Your task to perform on an android device: Find coffee shops on Maps Image 0: 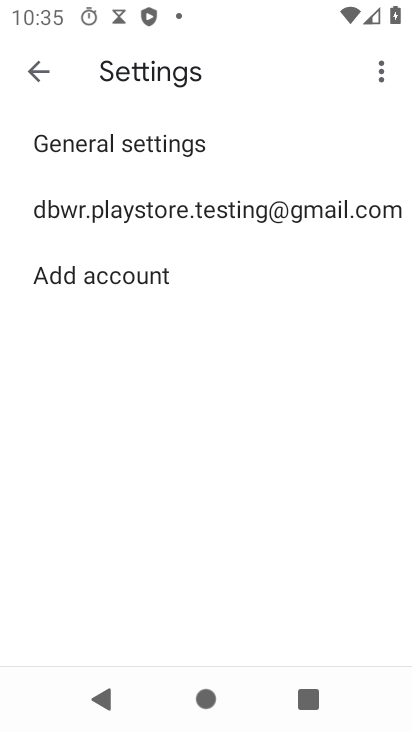
Step 0: press back button
Your task to perform on an android device: Find coffee shops on Maps Image 1: 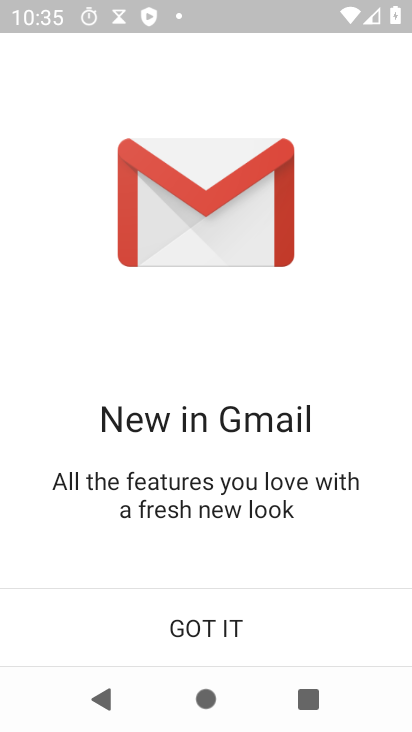
Step 1: press back button
Your task to perform on an android device: Find coffee shops on Maps Image 2: 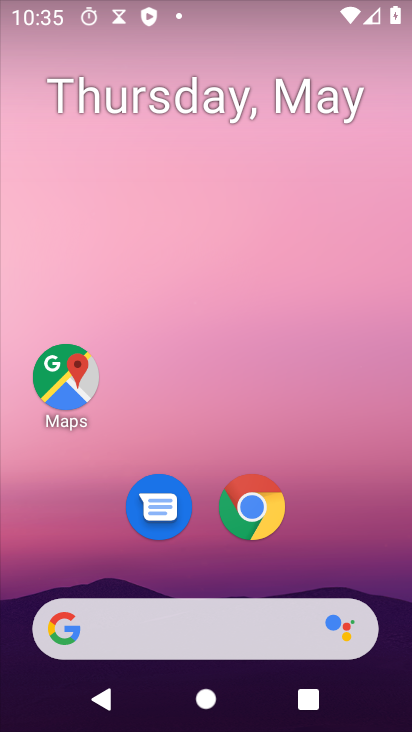
Step 2: drag from (321, 575) to (256, 0)
Your task to perform on an android device: Find coffee shops on Maps Image 3: 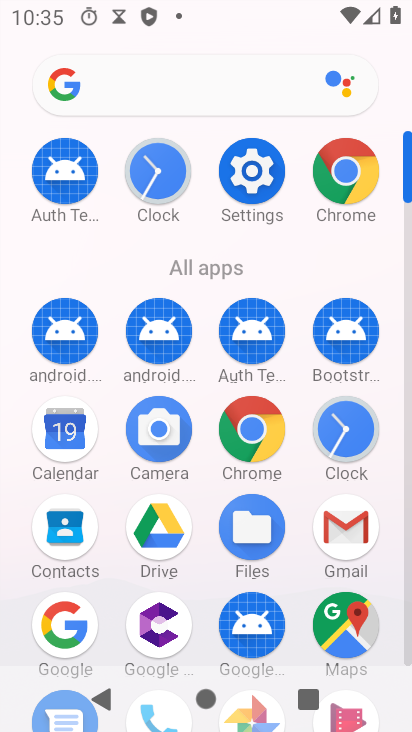
Step 3: drag from (18, 583) to (26, 230)
Your task to perform on an android device: Find coffee shops on Maps Image 4: 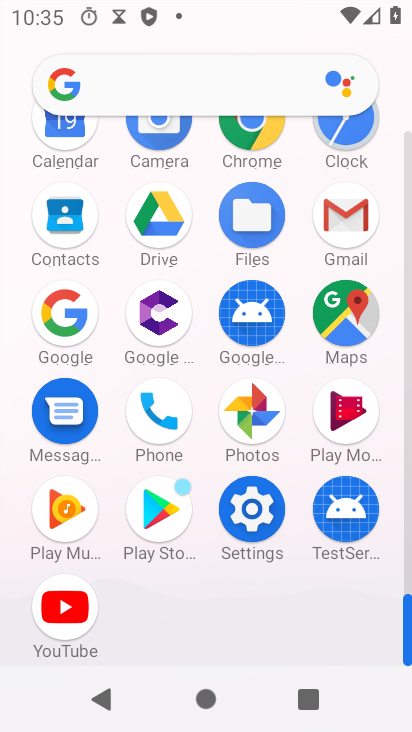
Step 4: click (346, 312)
Your task to perform on an android device: Find coffee shops on Maps Image 5: 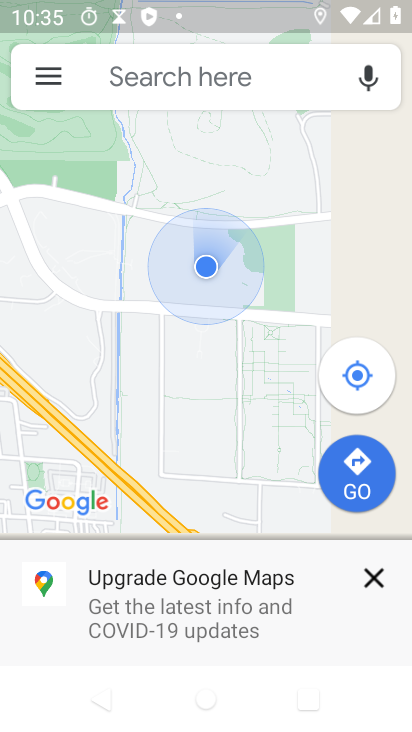
Step 5: click (367, 570)
Your task to perform on an android device: Find coffee shops on Maps Image 6: 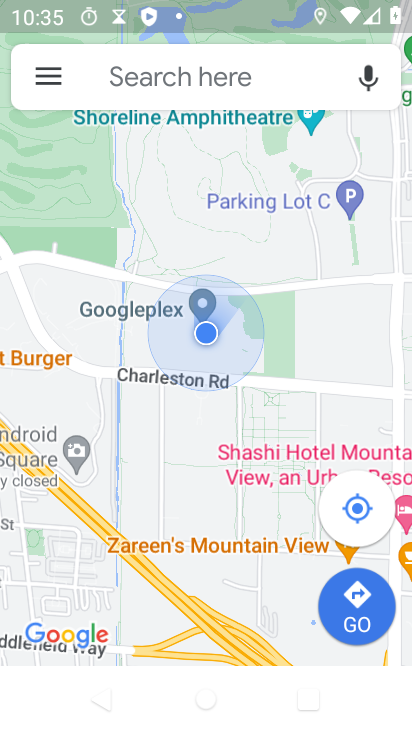
Step 6: click (261, 70)
Your task to perform on an android device: Find coffee shops on Maps Image 7: 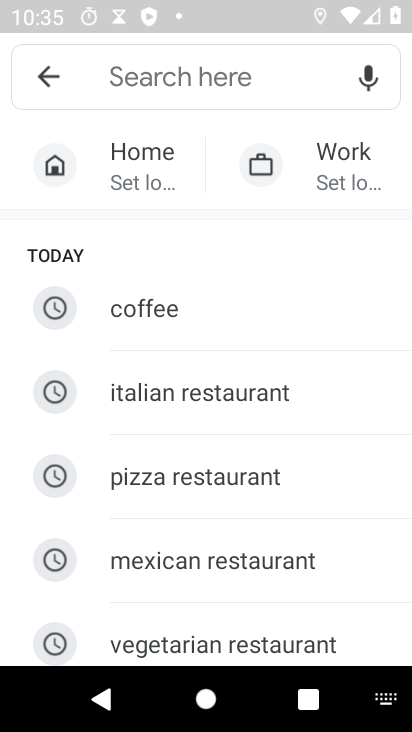
Step 7: click (131, 321)
Your task to perform on an android device: Find coffee shops on Maps Image 8: 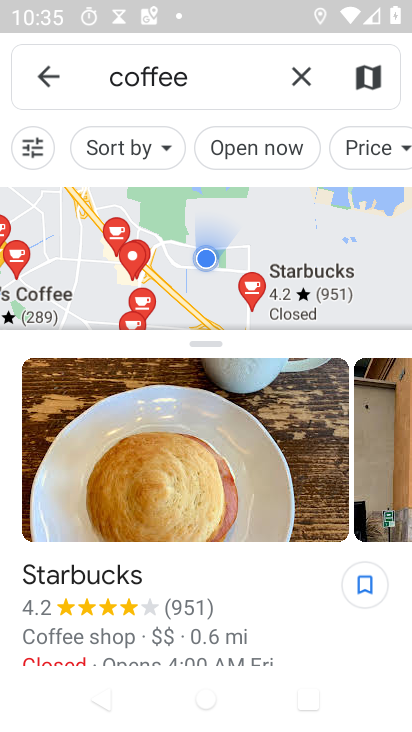
Step 8: task complete